Your task to perform on an android device: Play the last video I watched on Youtube Image 0: 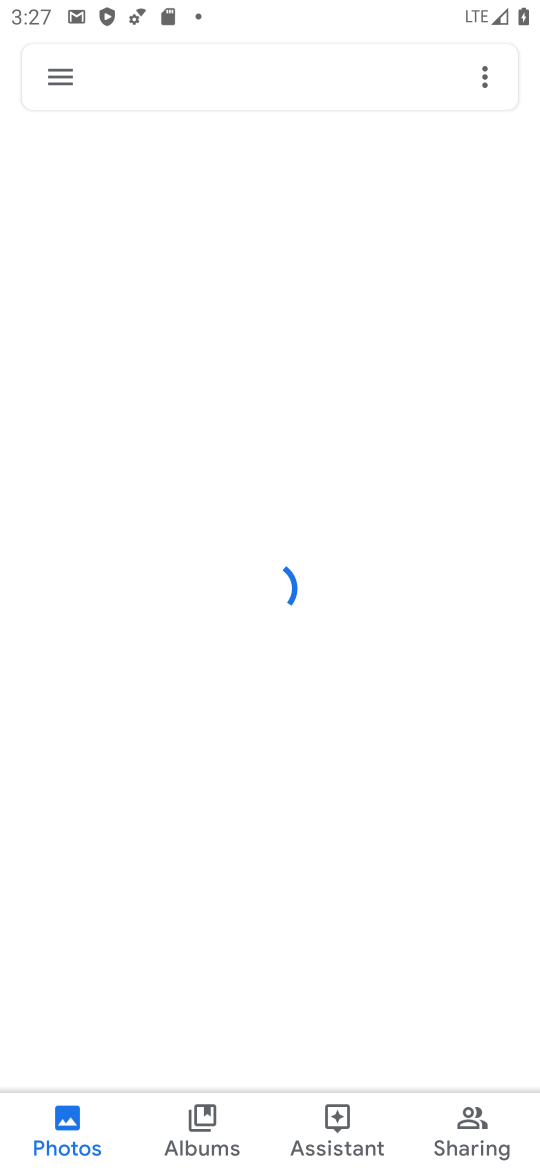
Step 0: press home button
Your task to perform on an android device: Play the last video I watched on Youtube Image 1: 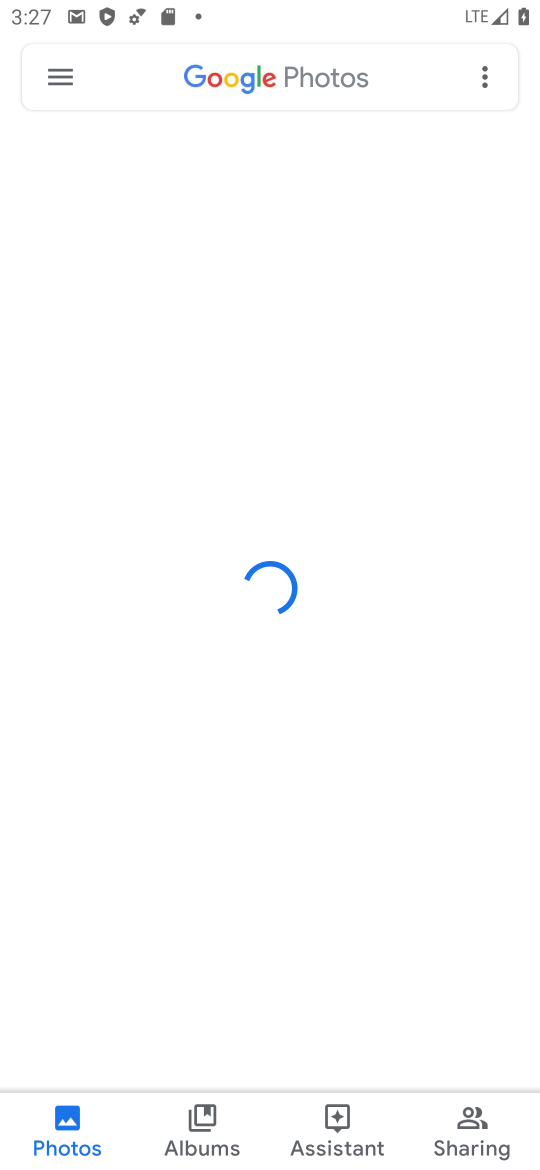
Step 1: press home button
Your task to perform on an android device: Play the last video I watched on Youtube Image 2: 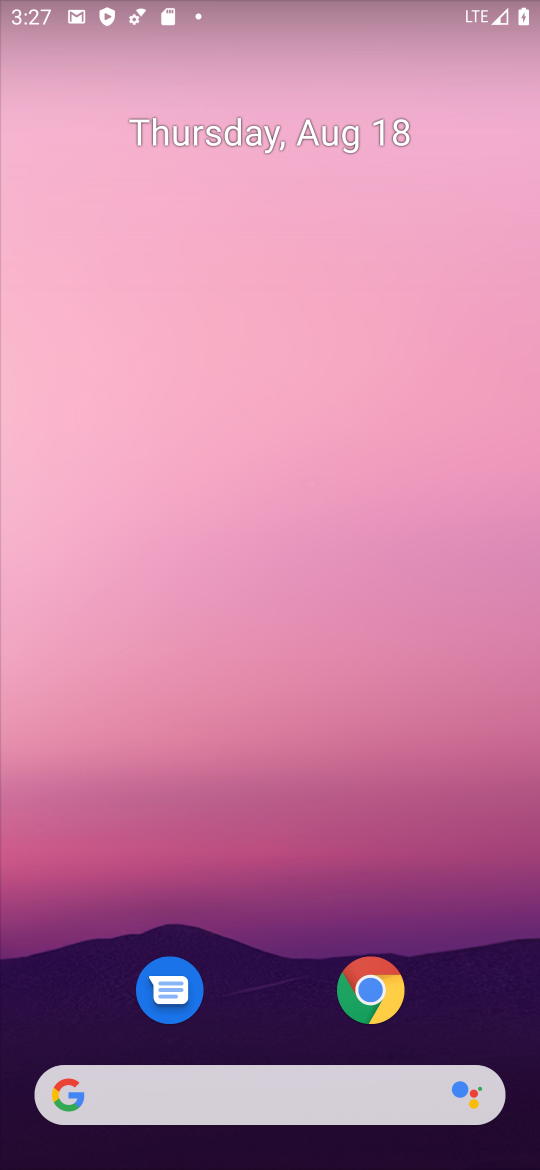
Step 2: drag from (283, 904) to (437, 109)
Your task to perform on an android device: Play the last video I watched on Youtube Image 3: 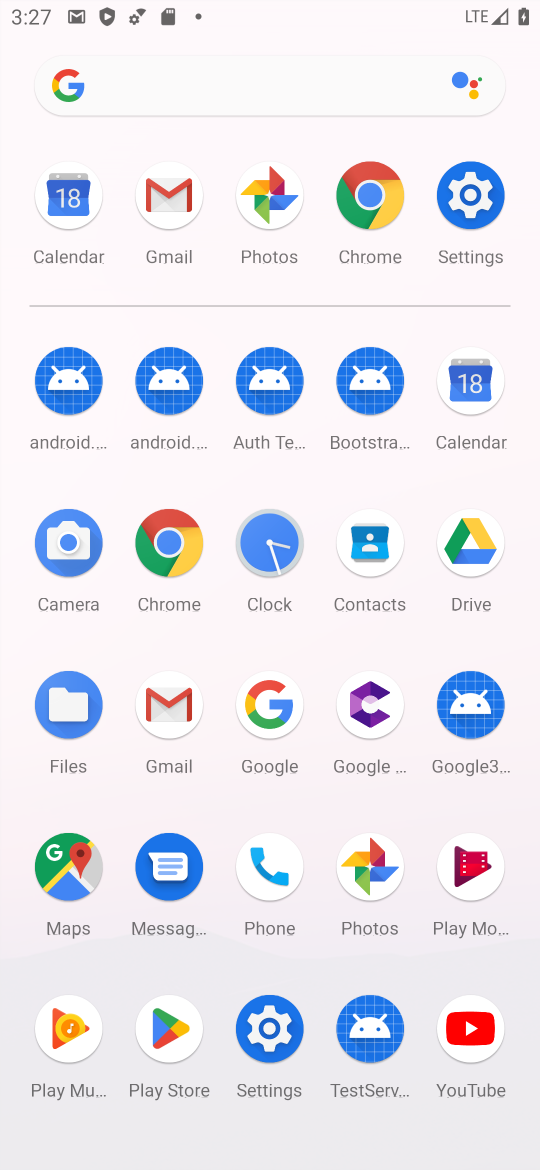
Step 3: click (475, 1013)
Your task to perform on an android device: Play the last video I watched on Youtube Image 4: 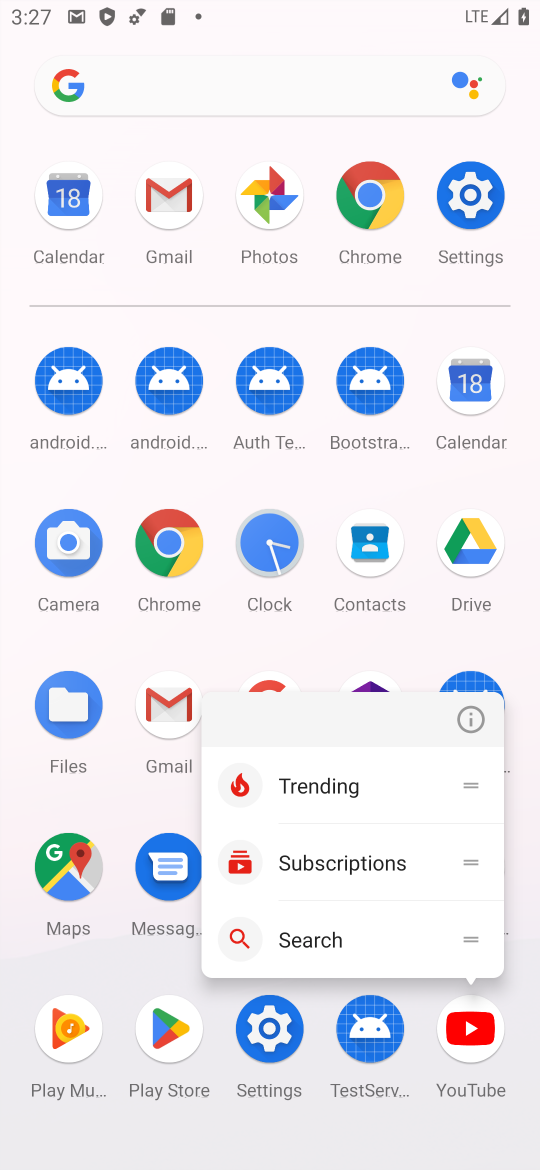
Step 4: click (479, 1019)
Your task to perform on an android device: Play the last video I watched on Youtube Image 5: 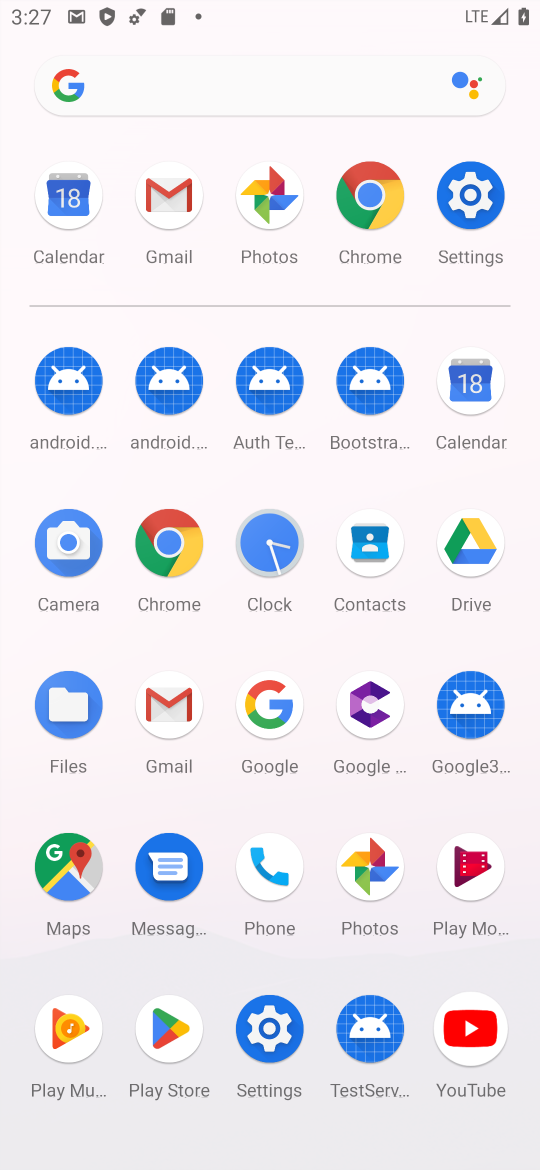
Step 5: click (470, 1024)
Your task to perform on an android device: Play the last video I watched on Youtube Image 6: 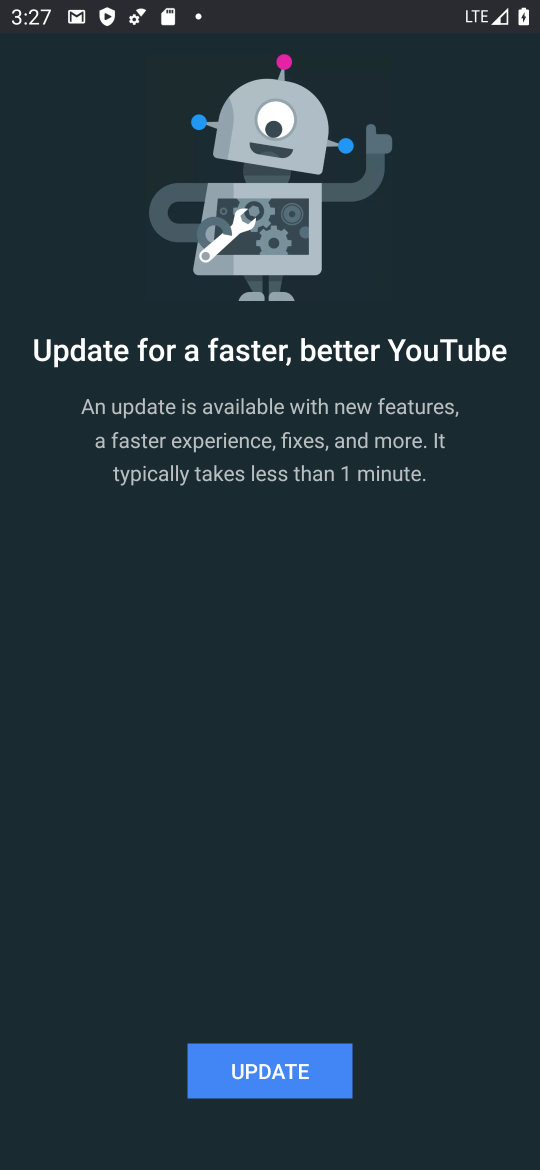
Step 6: click (296, 1070)
Your task to perform on an android device: Play the last video I watched on Youtube Image 7: 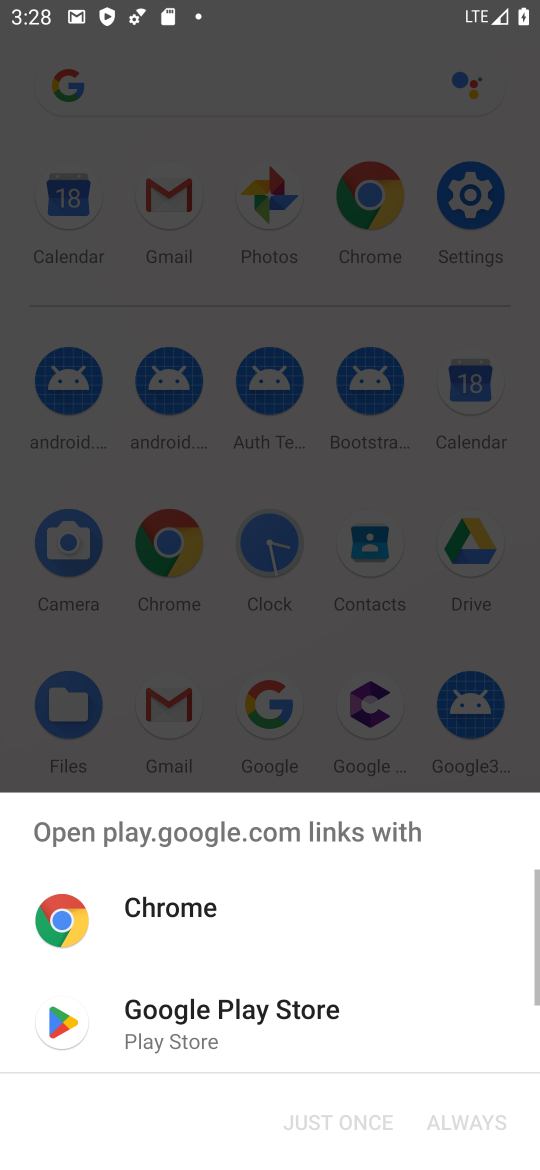
Step 7: click (205, 999)
Your task to perform on an android device: Play the last video I watched on Youtube Image 8: 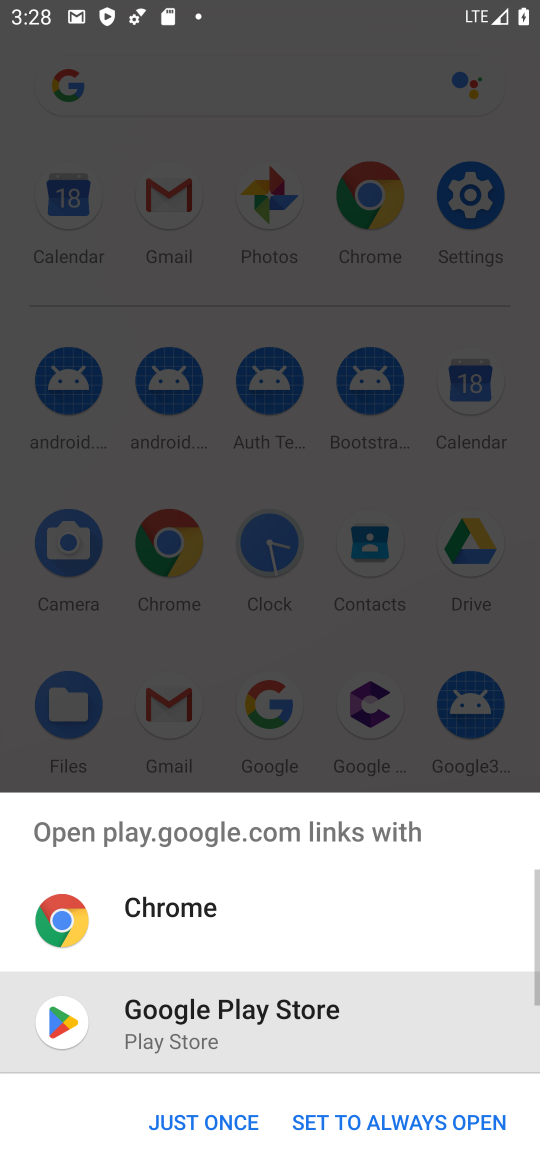
Step 8: click (229, 1119)
Your task to perform on an android device: Play the last video I watched on Youtube Image 9: 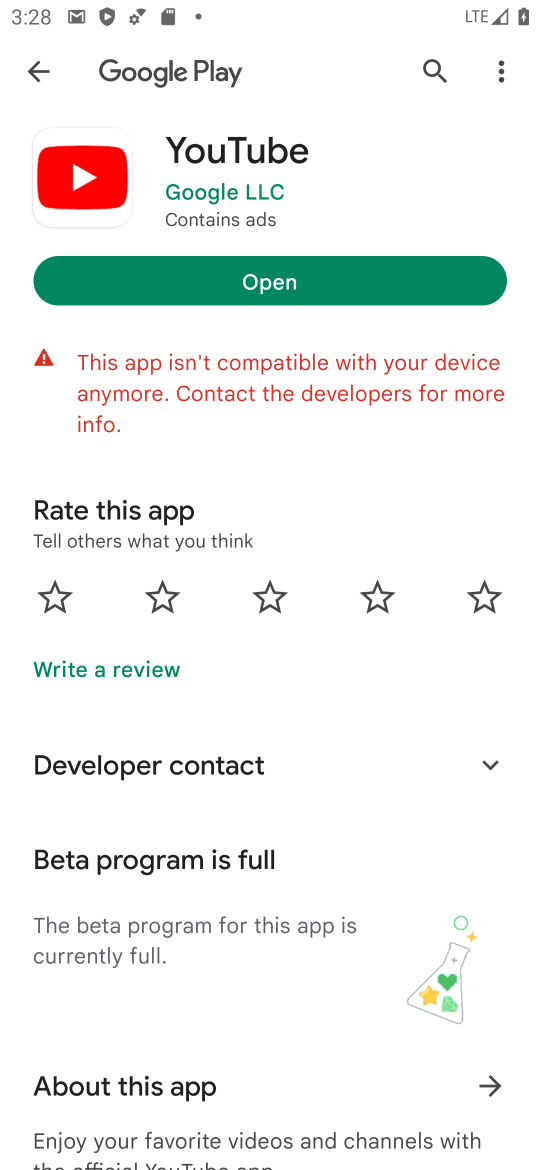
Step 9: task complete